Your task to perform on an android device: check out phone information Image 0: 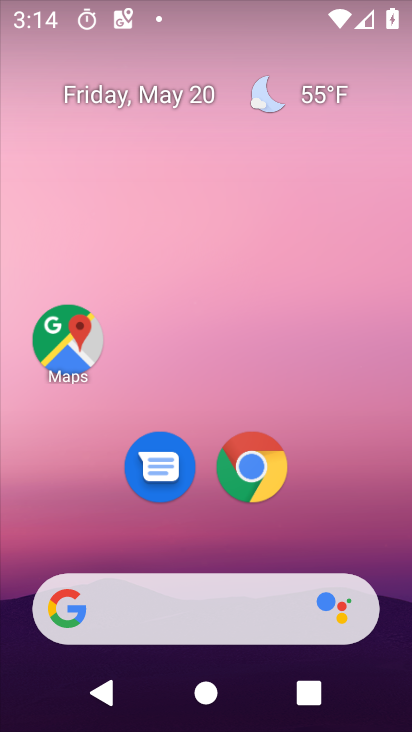
Step 0: drag from (223, 537) to (230, 93)
Your task to perform on an android device: check out phone information Image 1: 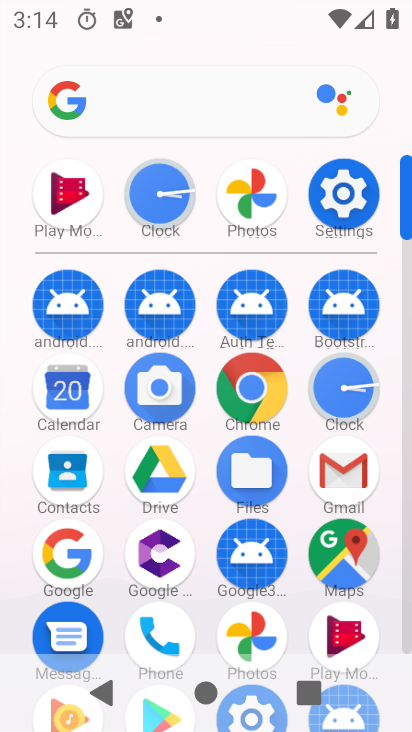
Step 1: click (341, 198)
Your task to perform on an android device: check out phone information Image 2: 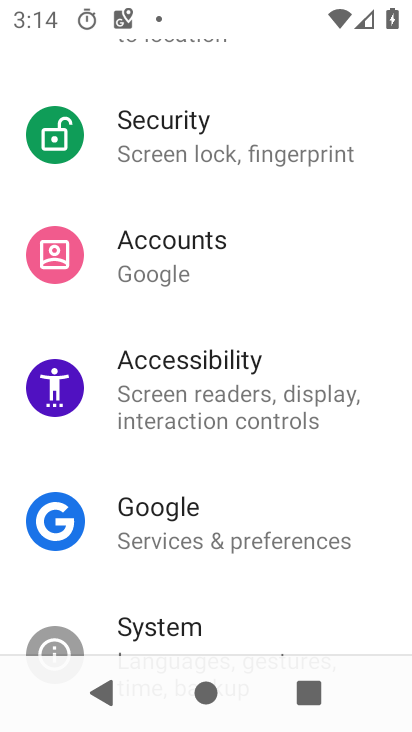
Step 2: drag from (192, 543) to (180, 173)
Your task to perform on an android device: check out phone information Image 3: 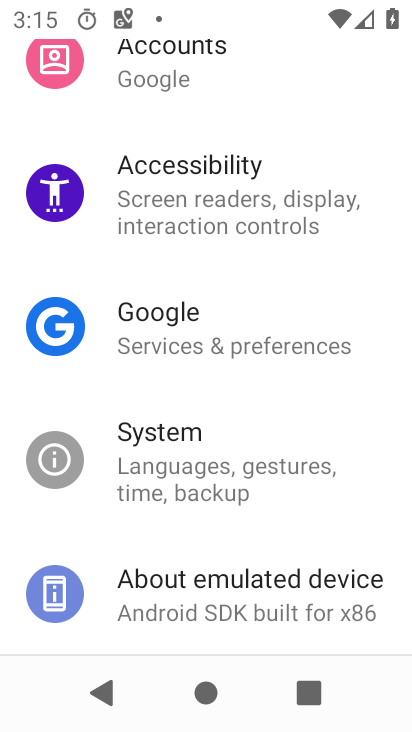
Step 3: click (143, 583)
Your task to perform on an android device: check out phone information Image 4: 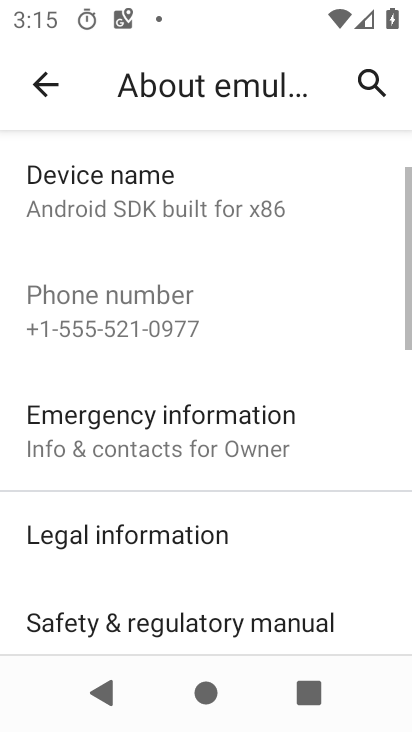
Step 4: task complete